Your task to perform on an android device: Show me popular videos on Youtube Image 0: 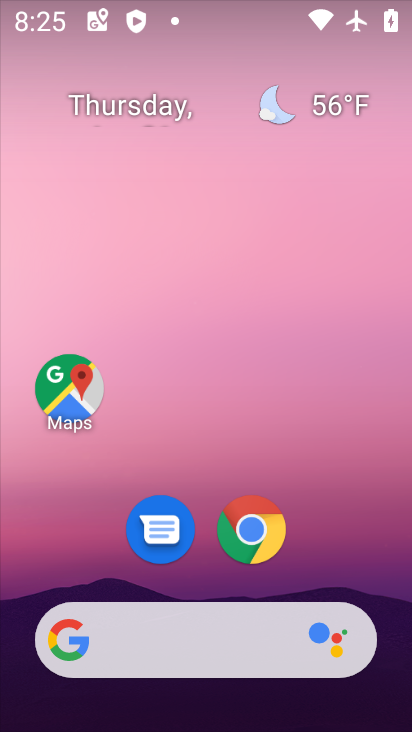
Step 0: drag from (185, 619) to (367, 40)
Your task to perform on an android device: Show me popular videos on Youtube Image 1: 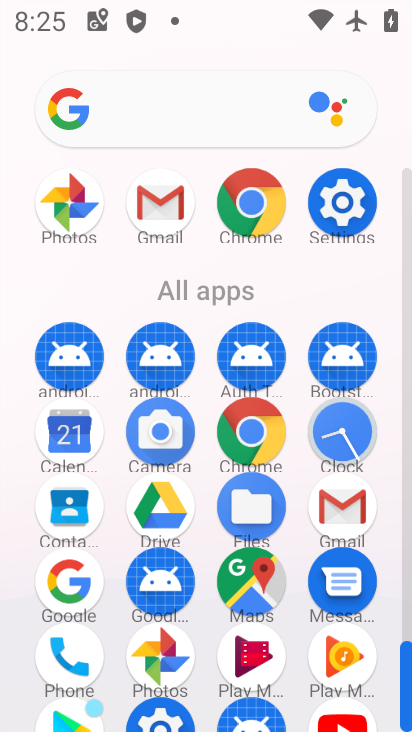
Step 1: drag from (223, 530) to (374, 111)
Your task to perform on an android device: Show me popular videos on Youtube Image 2: 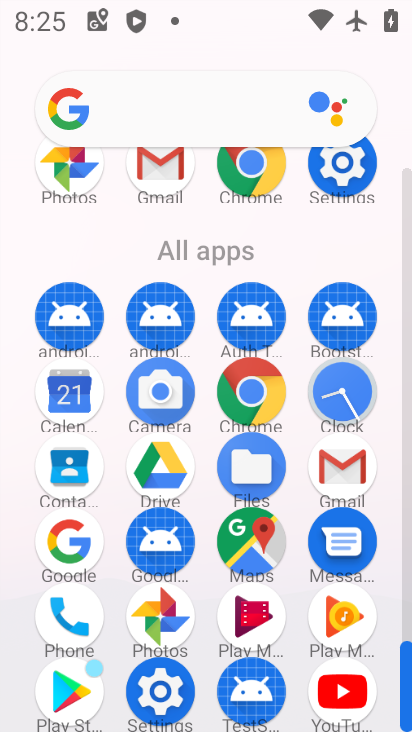
Step 2: click (341, 694)
Your task to perform on an android device: Show me popular videos on Youtube Image 3: 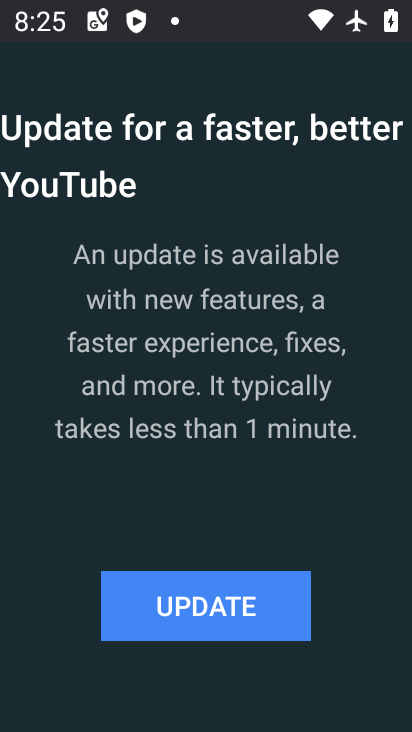
Step 3: click (250, 625)
Your task to perform on an android device: Show me popular videos on Youtube Image 4: 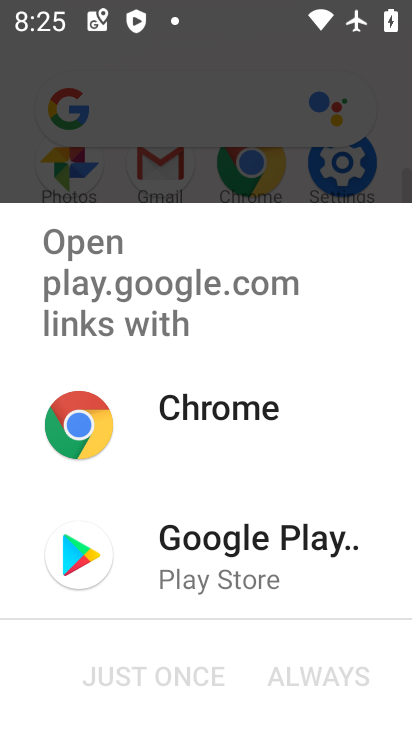
Step 4: click (225, 549)
Your task to perform on an android device: Show me popular videos on Youtube Image 5: 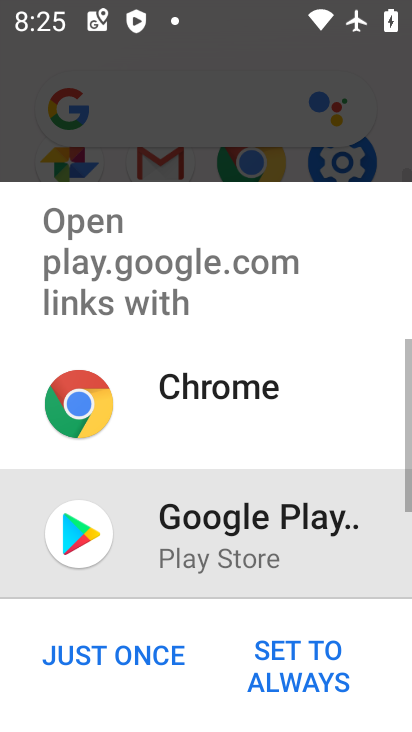
Step 5: click (151, 653)
Your task to perform on an android device: Show me popular videos on Youtube Image 6: 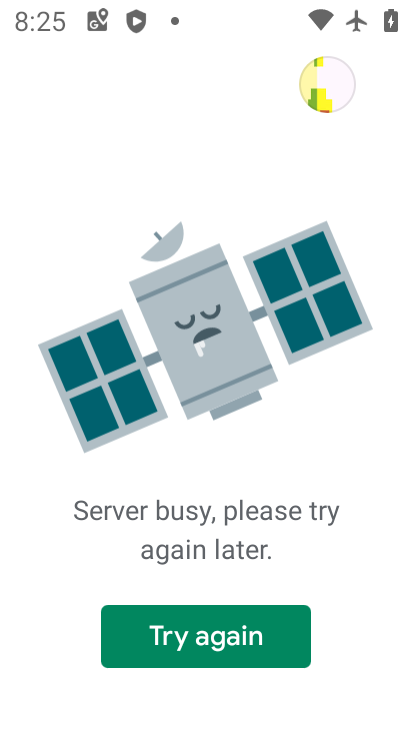
Step 6: task complete